Your task to perform on an android device: change the upload size in google photos Image 0: 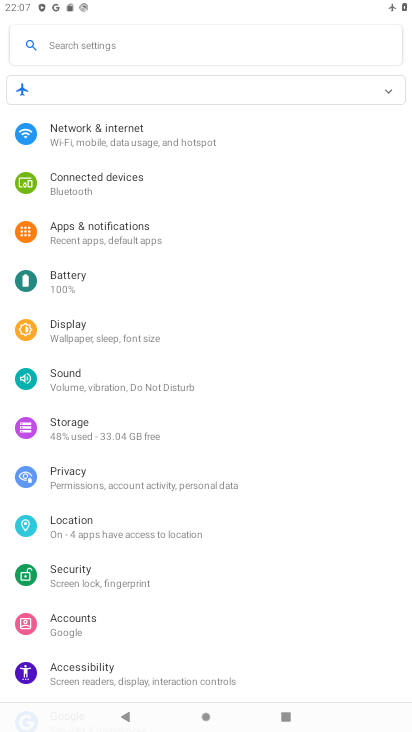
Step 0: press home button
Your task to perform on an android device: change the upload size in google photos Image 1: 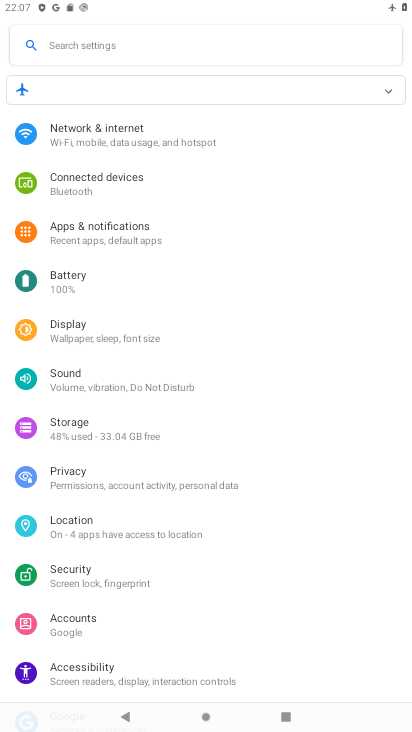
Step 1: press home button
Your task to perform on an android device: change the upload size in google photos Image 2: 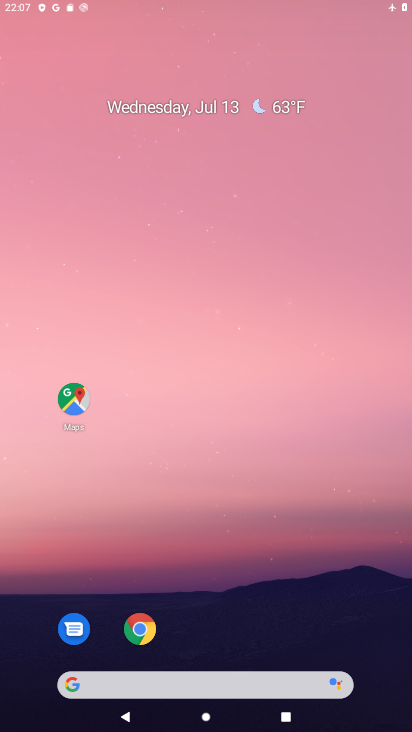
Step 2: press home button
Your task to perform on an android device: change the upload size in google photos Image 3: 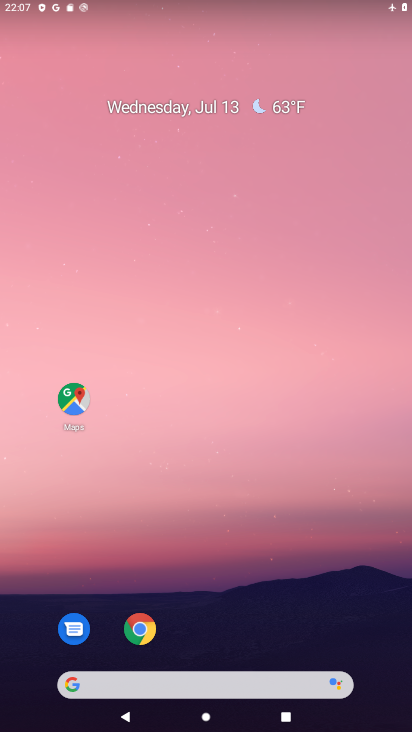
Step 3: drag from (258, 537) to (248, 238)
Your task to perform on an android device: change the upload size in google photos Image 4: 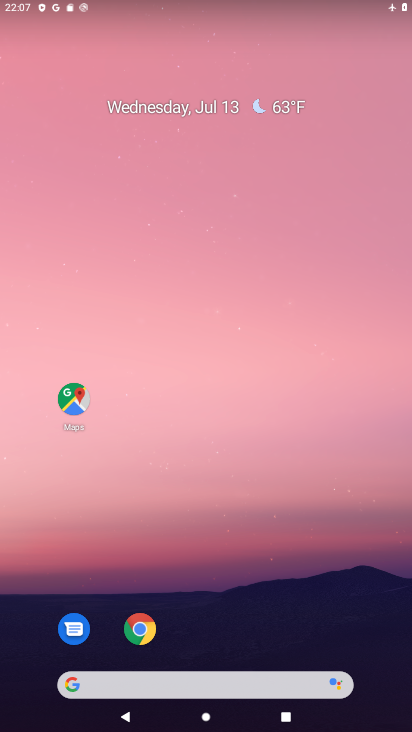
Step 4: drag from (232, 645) to (136, 36)
Your task to perform on an android device: change the upload size in google photos Image 5: 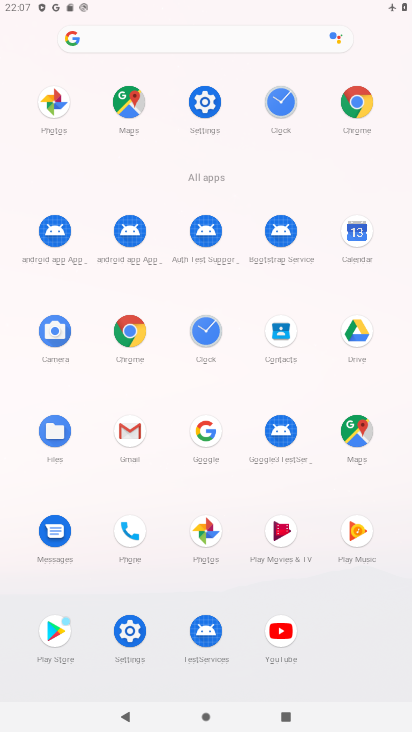
Step 5: click (200, 538)
Your task to perform on an android device: change the upload size in google photos Image 6: 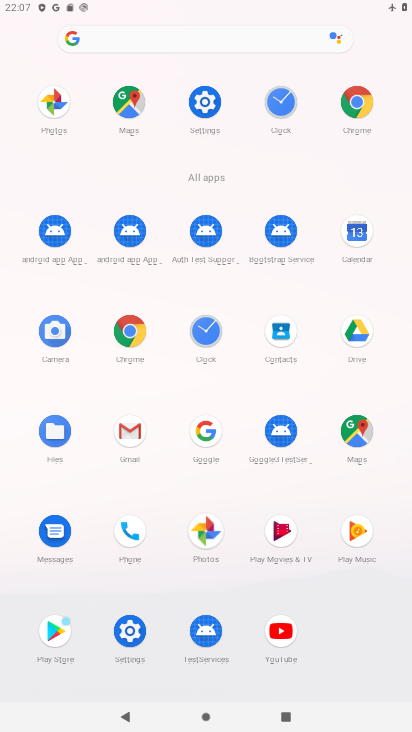
Step 6: click (200, 537)
Your task to perform on an android device: change the upload size in google photos Image 7: 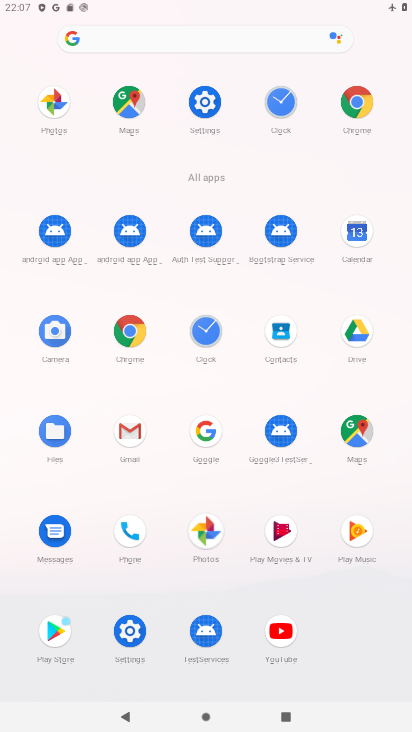
Step 7: click (200, 537)
Your task to perform on an android device: change the upload size in google photos Image 8: 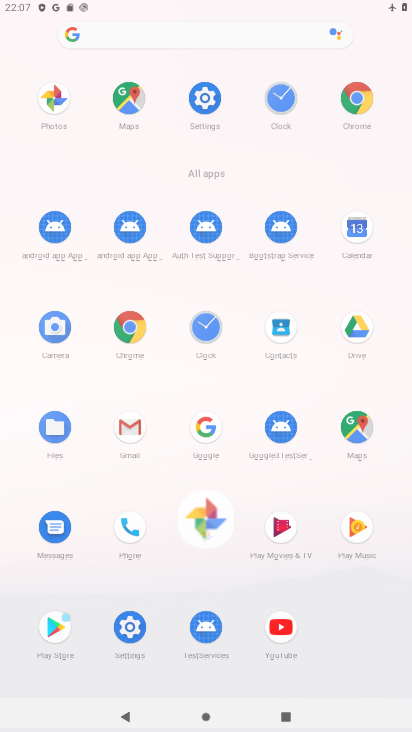
Step 8: click (210, 523)
Your task to perform on an android device: change the upload size in google photos Image 9: 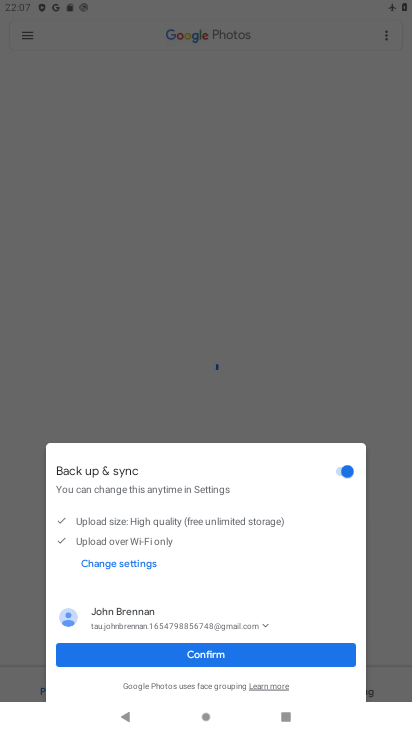
Step 9: click (209, 662)
Your task to perform on an android device: change the upload size in google photos Image 10: 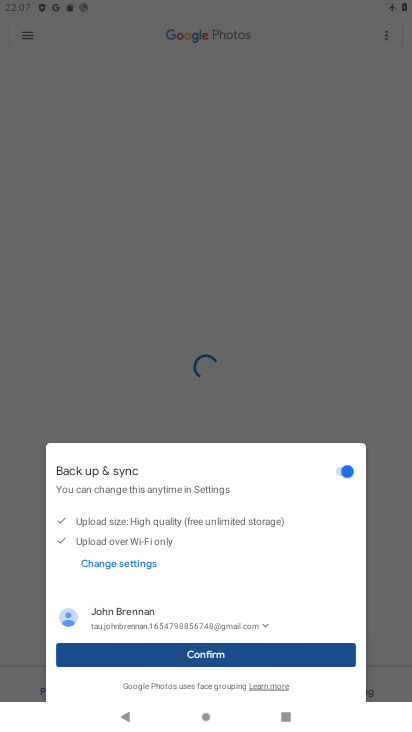
Step 10: click (210, 654)
Your task to perform on an android device: change the upload size in google photos Image 11: 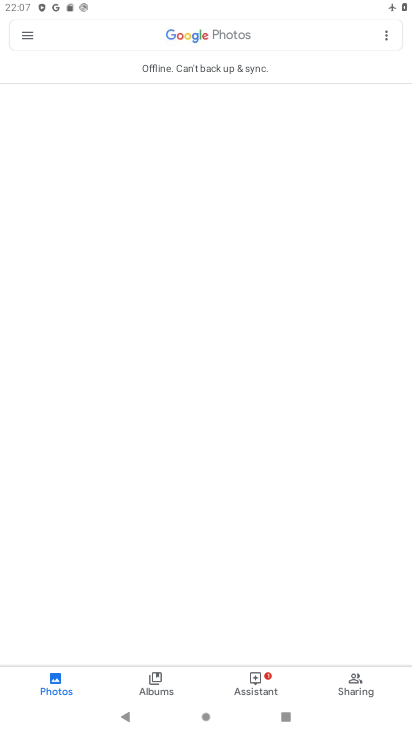
Step 11: click (210, 653)
Your task to perform on an android device: change the upload size in google photos Image 12: 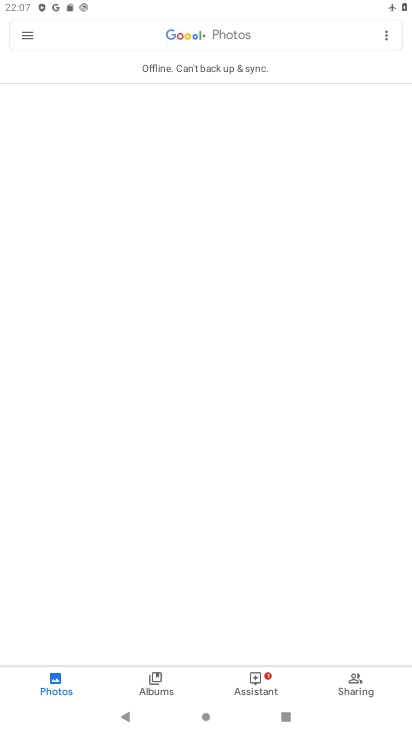
Step 12: drag from (30, 48) to (96, 376)
Your task to perform on an android device: change the upload size in google photos Image 13: 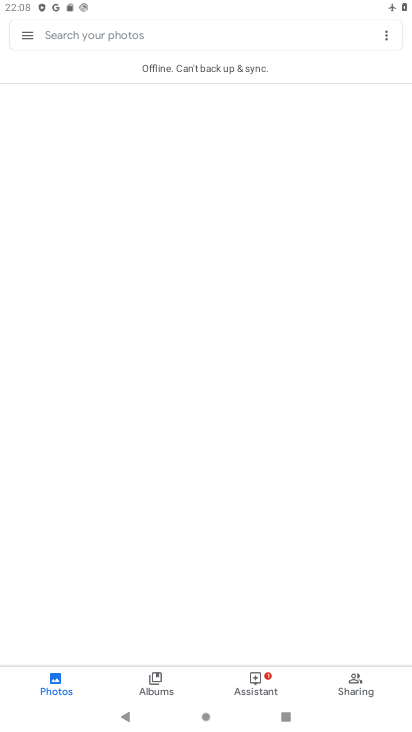
Step 13: click (43, 27)
Your task to perform on an android device: change the upload size in google photos Image 14: 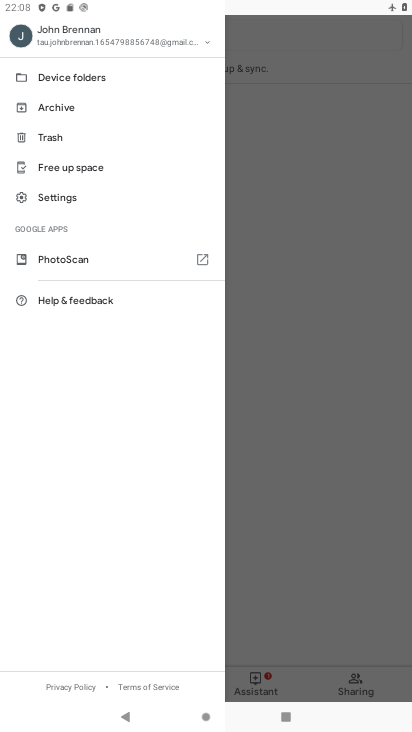
Step 14: click (55, 203)
Your task to perform on an android device: change the upload size in google photos Image 15: 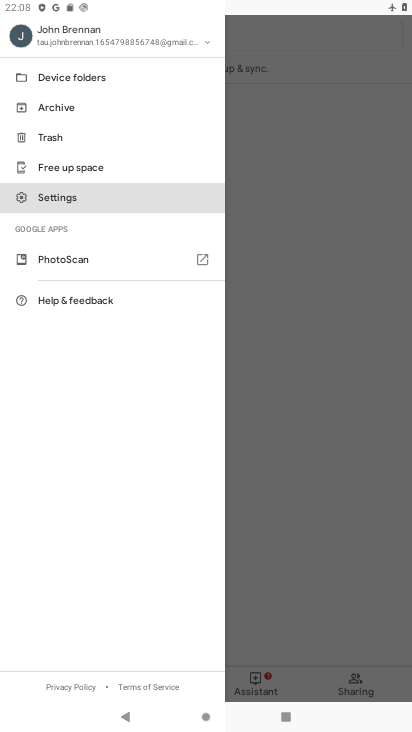
Step 15: click (55, 203)
Your task to perform on an android device: change the upload size in google photos Image 16: 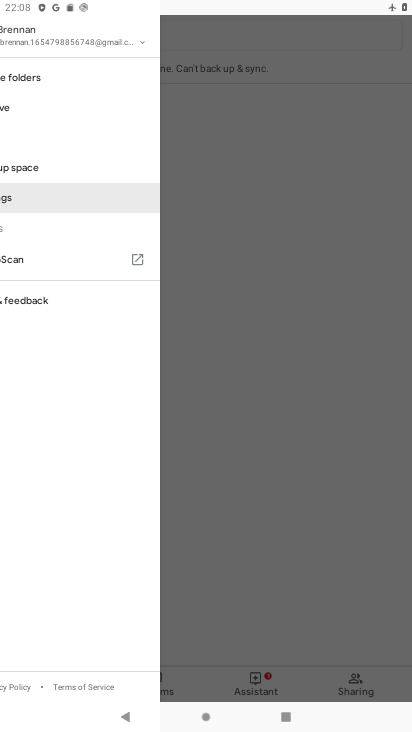
Step 16: click (58, 200)
Your task to perform on an android device: change the upload size in google photos Image 17: 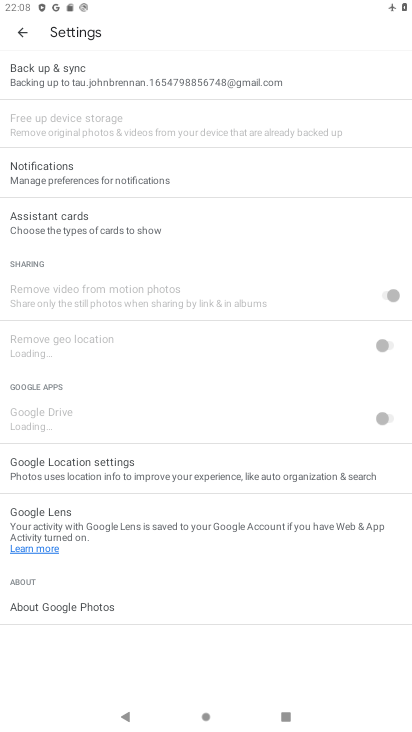
Step 17: click (54, 83)
Your task to perform on an android device: change the upload size in google photos Image 18: 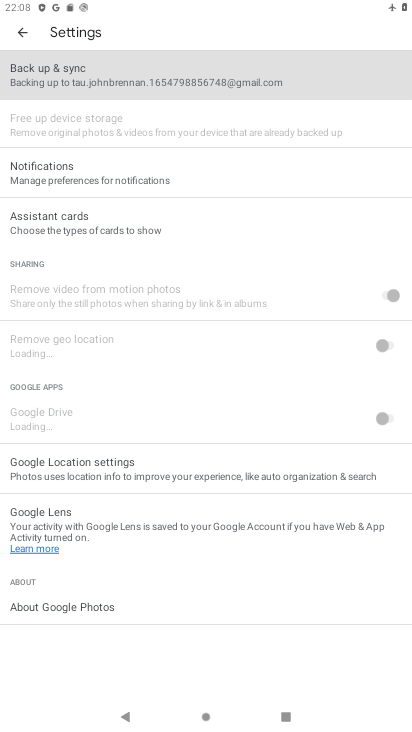
Step 18: click (55, 82)
Your task to perform on an android device: change the upload size in google photos Image 19: 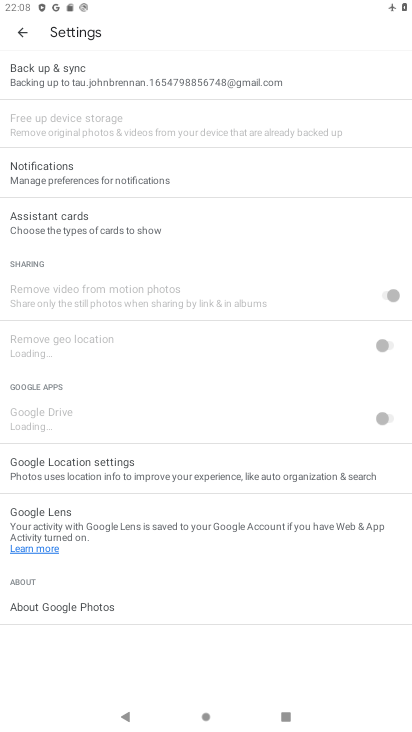
Step 19: click (55, 82)
Your task to perform on an android device: change the upload size in google photos Image 20: 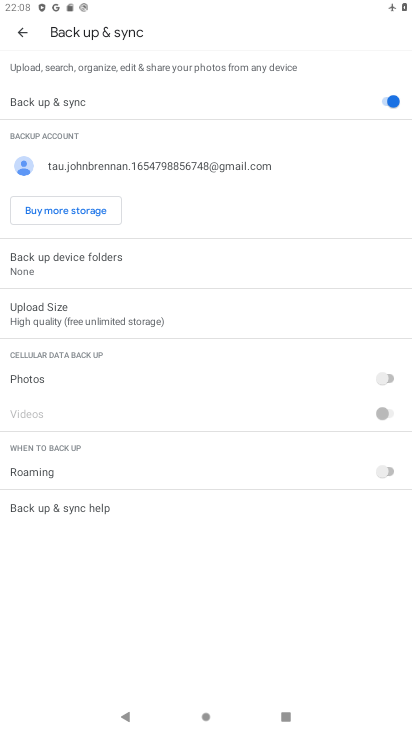
Step 20: click (53, 254)
Your task to perform on an android device: change the upload size in google photos Image 21: 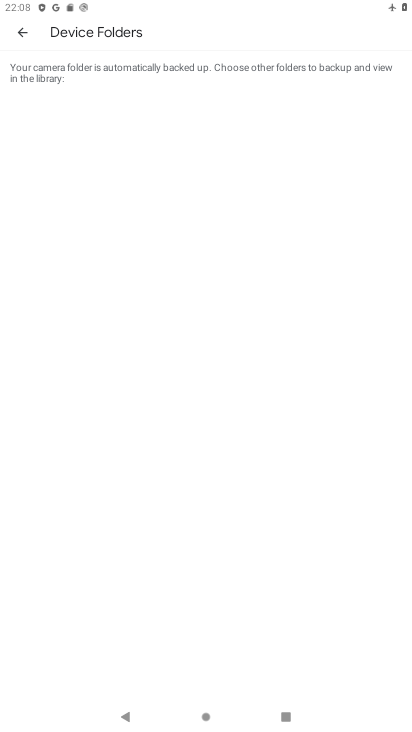
Step 21: click (25, 41)
Your task to perform on an android device: change the upload size in google photos Image 22: 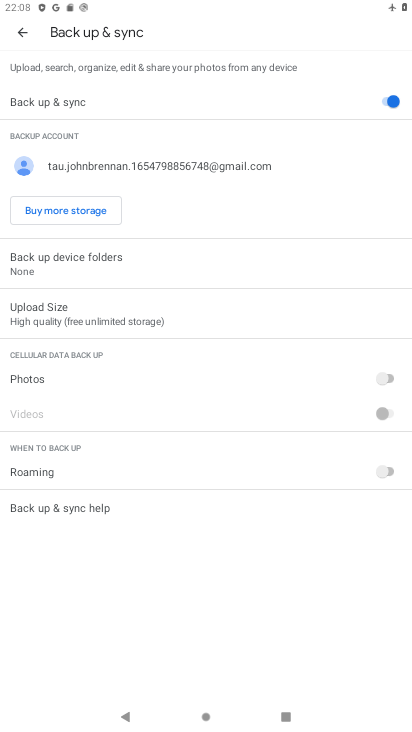
Step 22: click (66, 313)
Your task to perform on an android device: change the upload size in google photos Image 23: 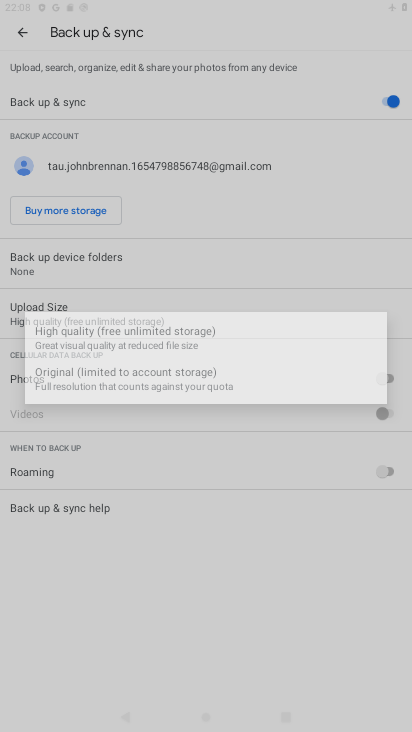
Step 23: click (65, 314)
Your task to perform on an android device: change the upload size in google photos Image 24: 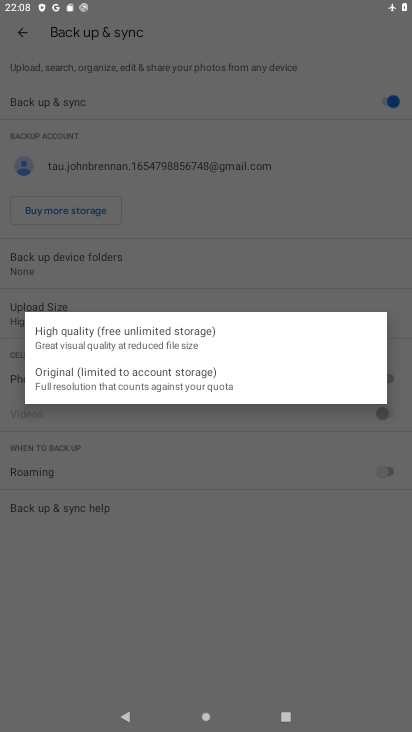
Step 24: click (56, 377)
Your task to perform on an android device: change the upload size in google photos Image 25: 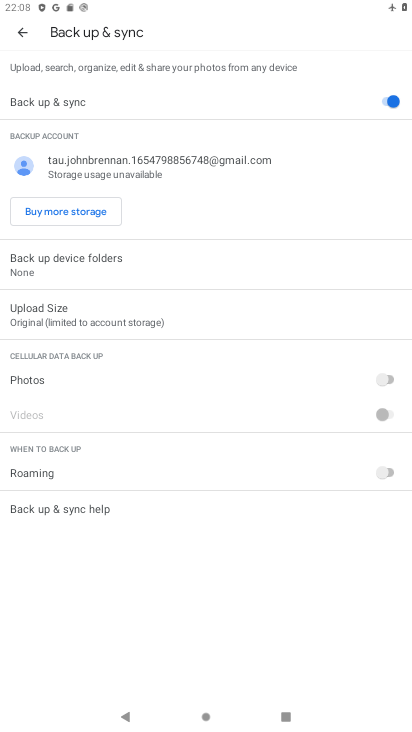
Step 25: task complete